Your task to perform on an android device: Open calendar and show me the fourth week of next month Image 0: 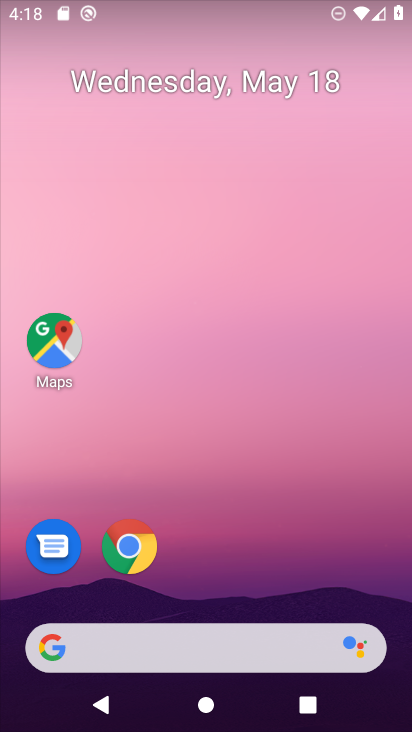
Step 0: drag from (210, 577) to (337, 15)
Your task to perform on an android device: Open calendar and show me the fourth week of next month Image 1: 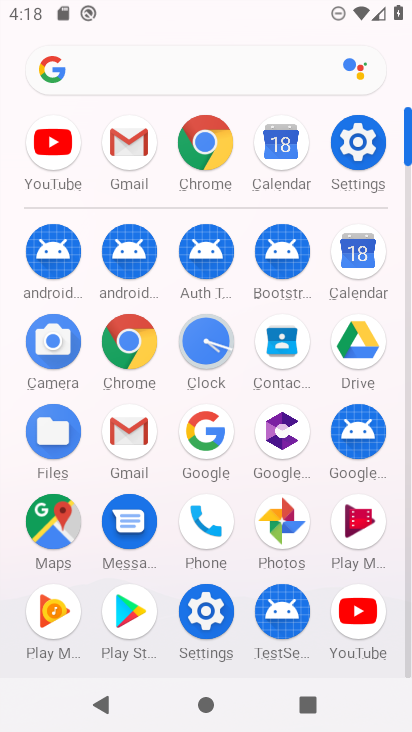
Step 1: click (349, 266)
Your task to perform on an android device: Open calendar and show me the fourth week of next month Image 2: 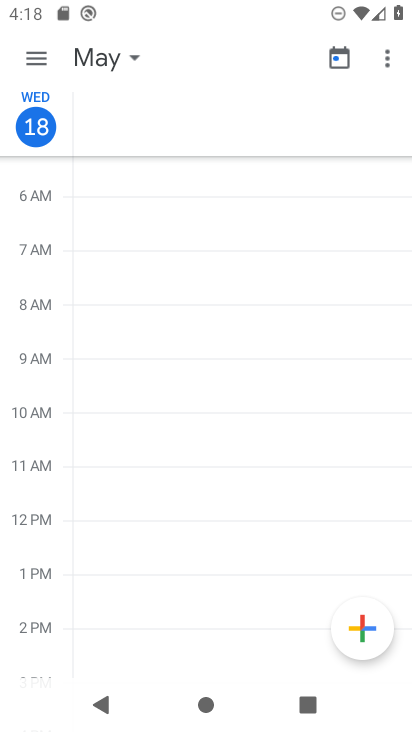
Step 2: click (36, 62)
Your task to perform on an android device: Open calendar and show me the fourth week of next month Image 3: 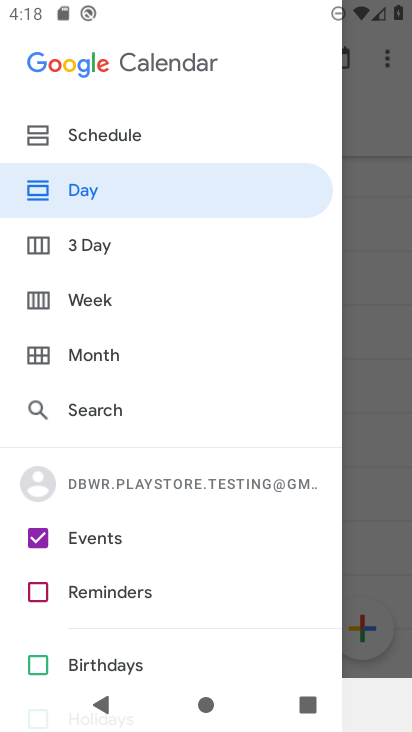
Step 3: click (103, 298)
Your task to perform on an android device: Open calendar and show me the fourth week of next month Image 4: 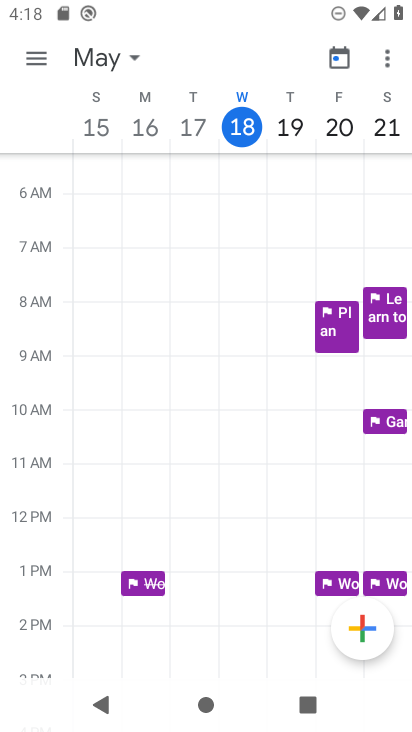
Step 4: task complete